Your task to perform on an android device: clear all cookies in the chrome app Image 0: 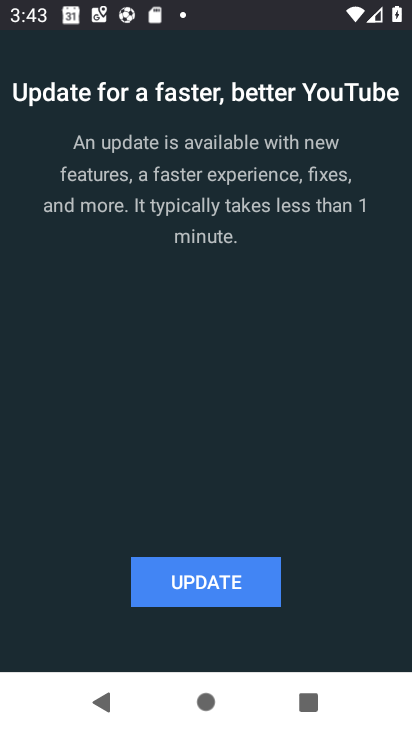
Step 0: press home button
Your task to perform on an android device: clear all cookies in the chrome app Image 1: 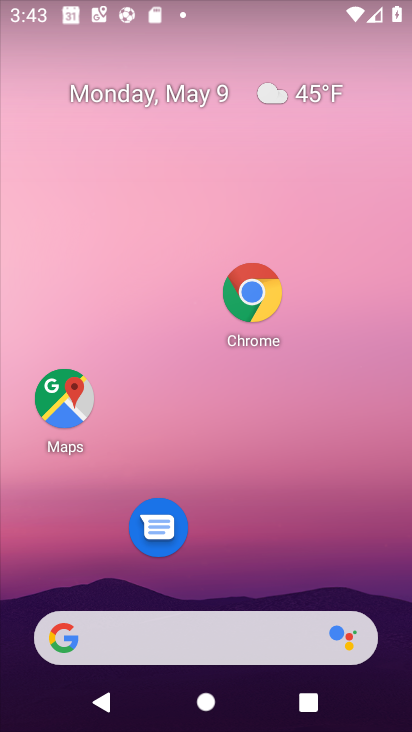
Step 1: click (265, 323)
Your task to perform on an android device: clear all cookies in the chrome app Image 2: 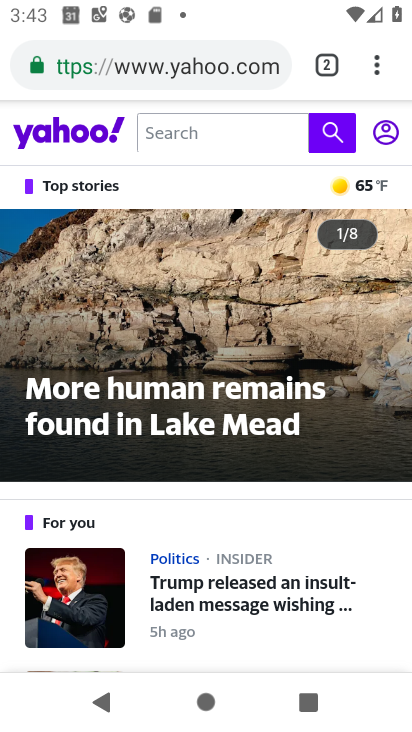
Step 2: click (374, 58)
Your task to perform on an android device: clear all cookies in the chrome app Image 3: 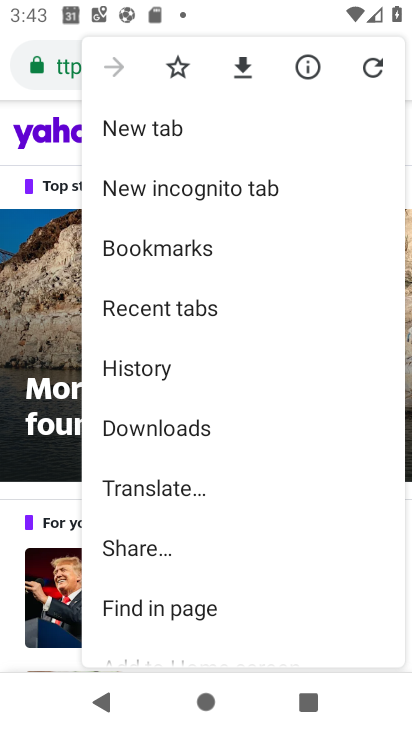
Step 3: drag from (173, 470) to (264, 112)
Your task to perform on an android device: clear all cookies in the chrome app Image 4: 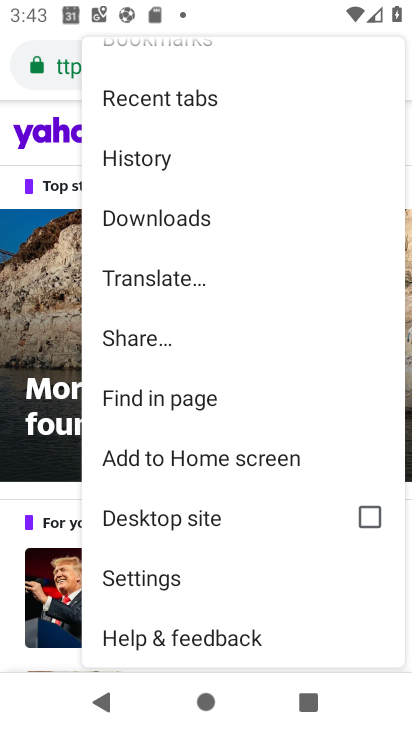
Step 4: drag from (319, 423) to (330, 171)
Your task to perform on an android device: clear all cookies in the chrome app Image 5: 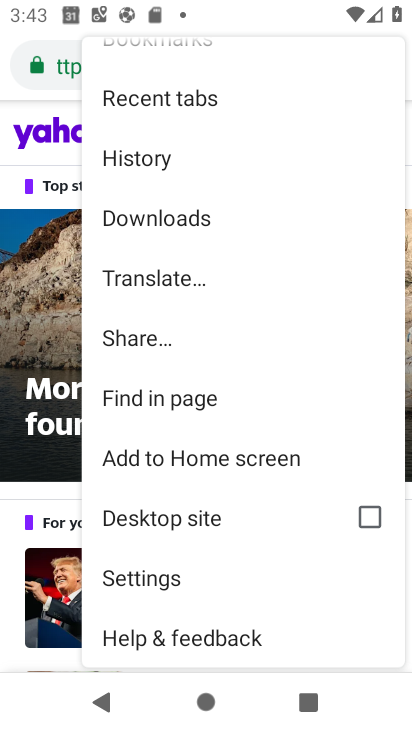
Step 5: click (156, 164)
Your task to perform on an android device: clear all cookies in the chrome app Image 6: 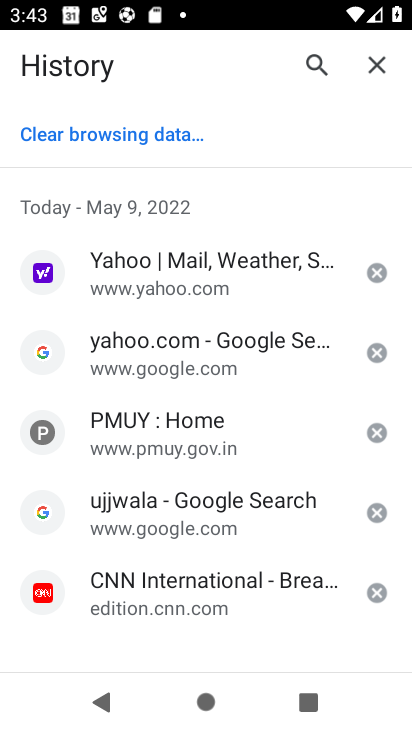
Step 6: click (156, 164)
Your task to perform on an android device: clear all cookies in the chrome app Image 7: 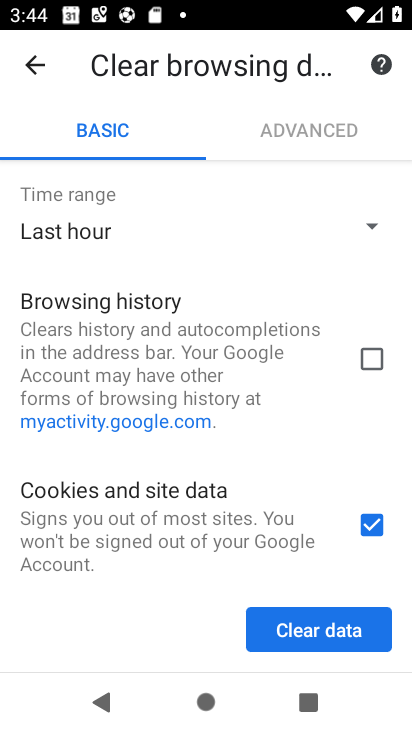
Step 7: click (354, 633)
Your task to perform on an android device: clear all cookies in the chrome app Image 8: 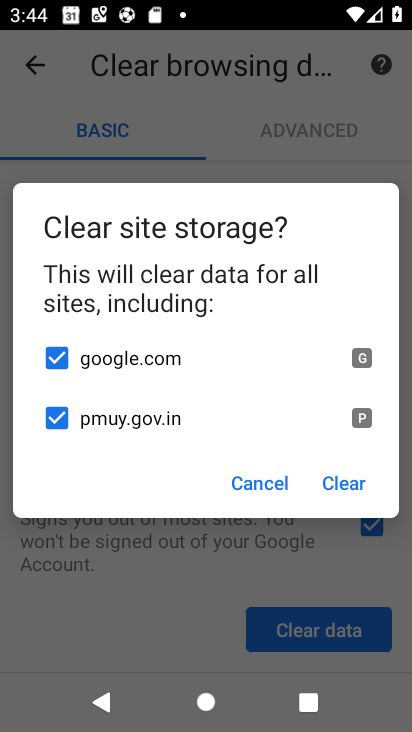
Step 8: click (348, 490)
Your task to perform on an android device: clear all cookies in the chrome app Image 9: 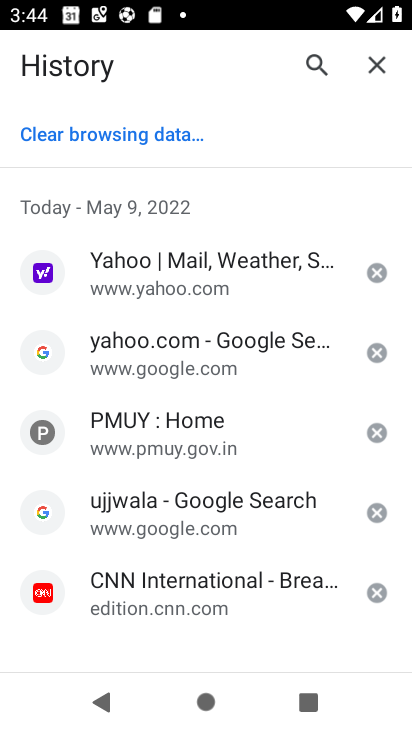
Step 9: task complete